Your task to perform on an android device: set the timer Image 0: 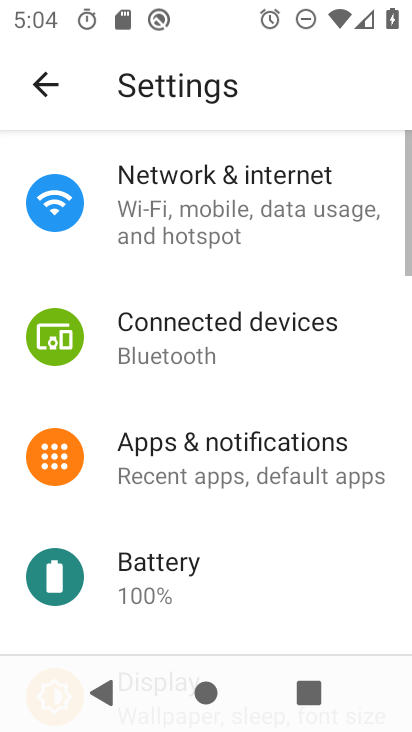
Step 0: press back button
Your task to perform on an android device: set the timer Image 1: 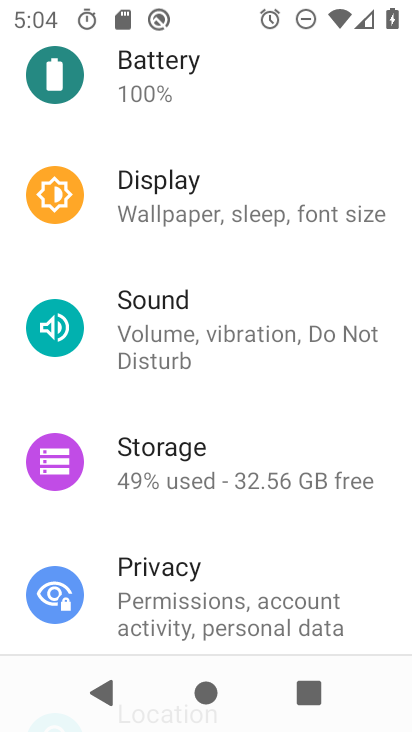
Step 1: press back button
Your task to perform on an android device: set the timer Image 2: 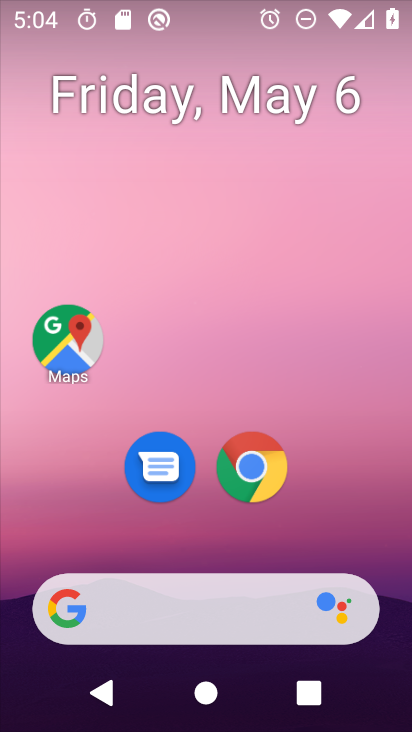
Step 2: drag from (309, 514) to (306, 77)
Your task to perform on an android device: set the timer Image 3: 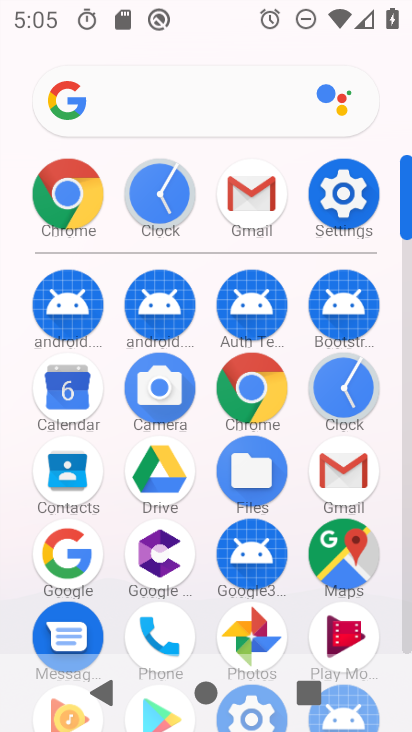
Step 3: click (344, 394)
Your task to perform on an android device: set the timer Image 4: 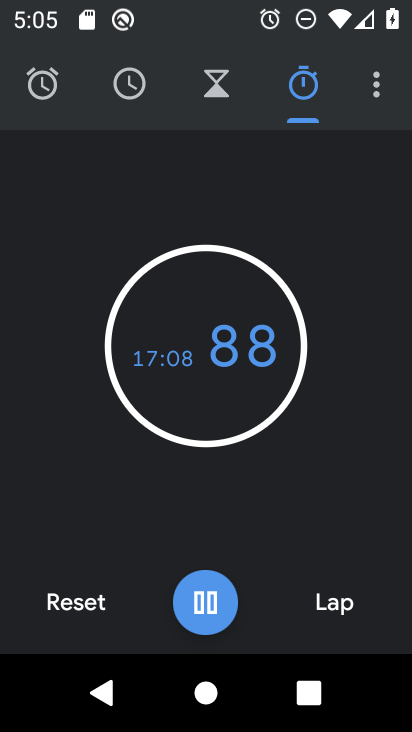
Step 4: click (229, 96)
Your task to perform on an android device: set the timer Image 5: 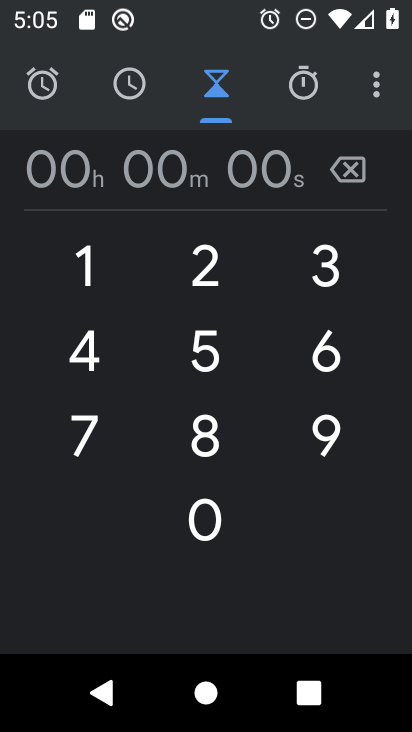
Step 5: click (75, 263)
Your task to perform on an android device: set the timer Image 6: 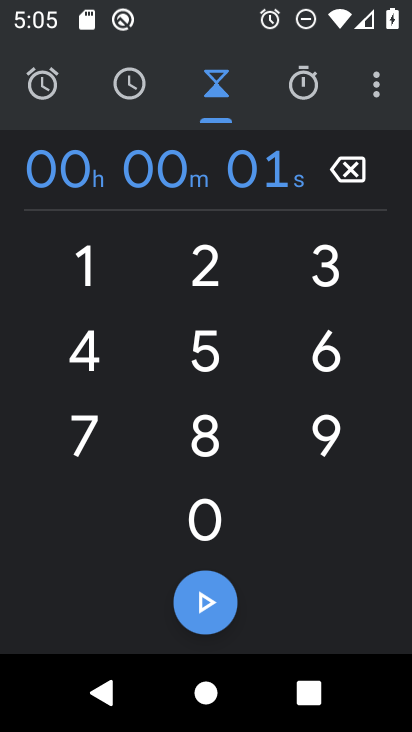
Step 6: click (182, 530)
Your task to perform on an android device: set the timer Image 7: 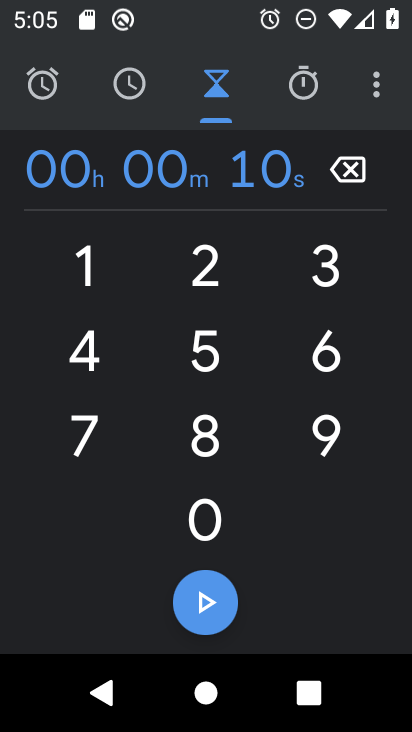
Step 7: click (223, 253)
Your task to perform on an android device: set the timer Image 8: 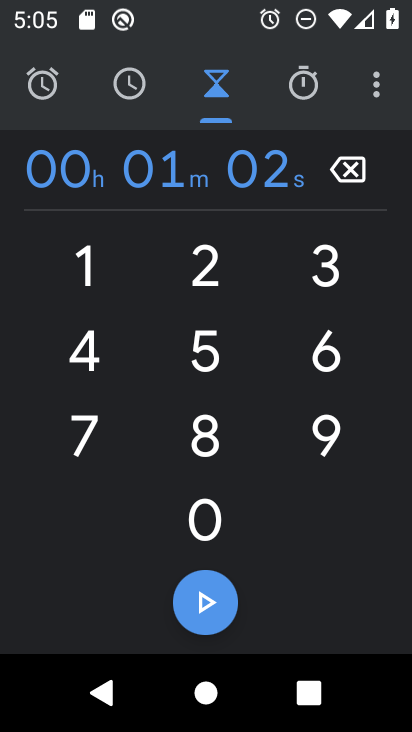
Step 8: click (224, 529)
Your task to perform on an android device: set the timer Image 9: 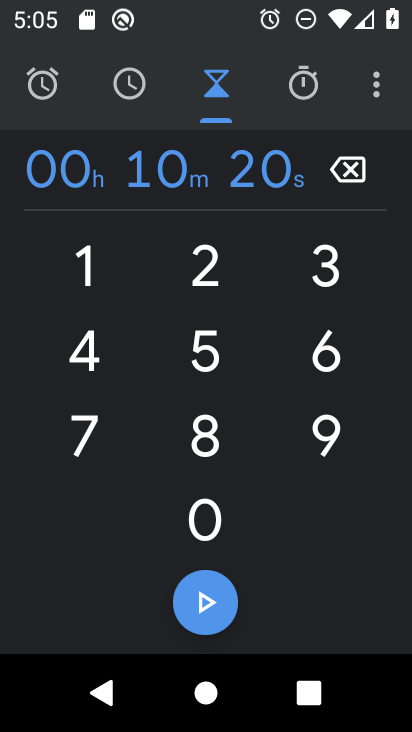
Step 9: click (205, 625)
Your task to perform on an android device: set the timer Image 10: 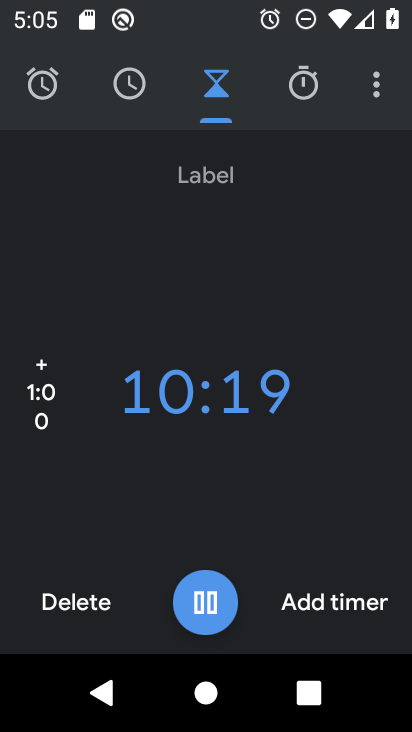
Step 10: click (327, 607)
Your task to perform on an android device: set the timer Image 11: 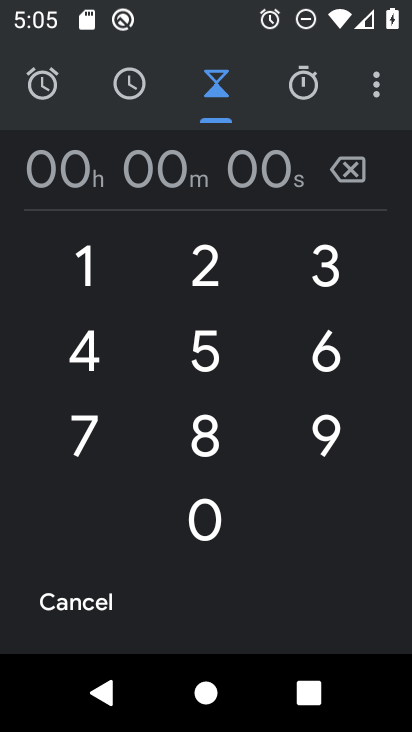
Step 11: task complete